Your task to perform on an android device: Open Youtube and go to "Your channel" Image 0: 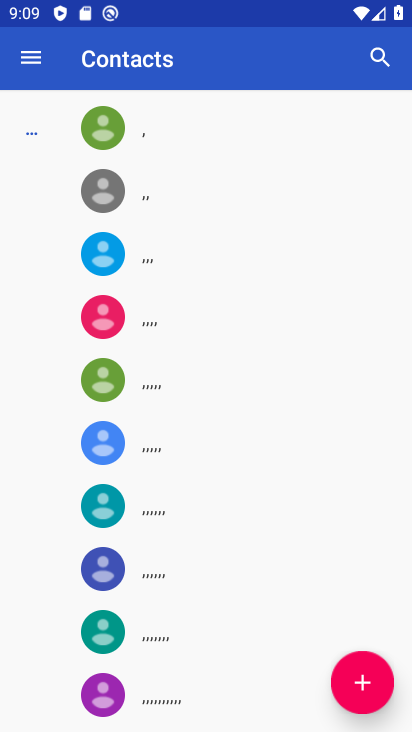
Step 0: task complete